Your task to perform on an android device: Is it going to rain tomorrow? Image 0: 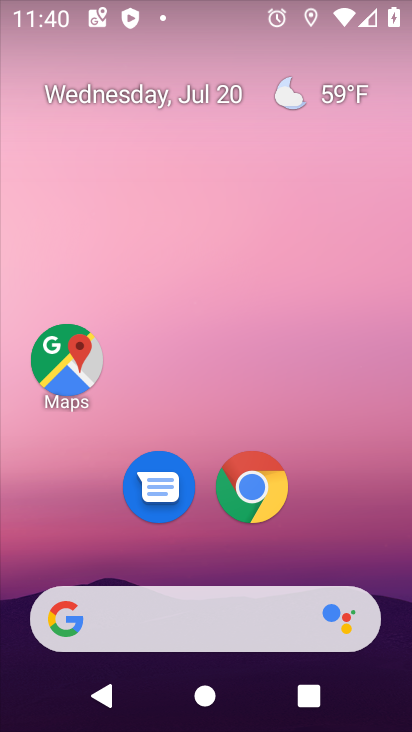
Step 0: click (221, 622)
Your task to perform on an android device: Is it going to rain tomorrow? Image 1: 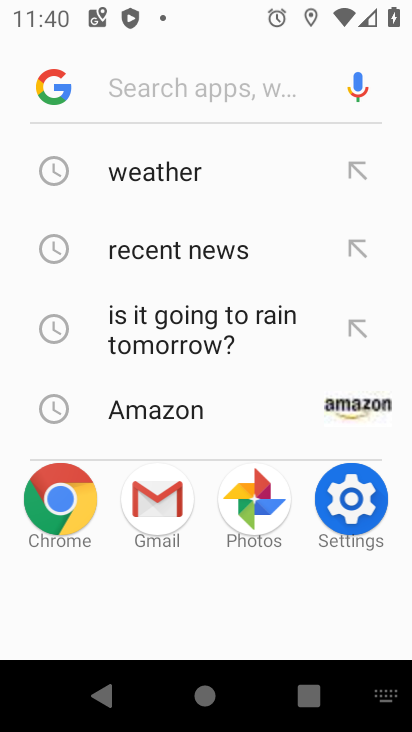
Step 1: click (169, 172)
Your task to perform on an android device: Is it going to rain tomorrow? Image 2: 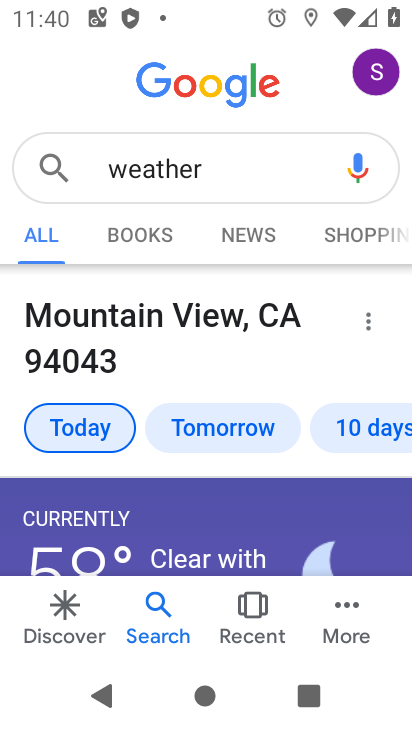
Step 2: click (189, 435)
Your task to perform on an android device: Is it going to rain tomorrow? Image 3: 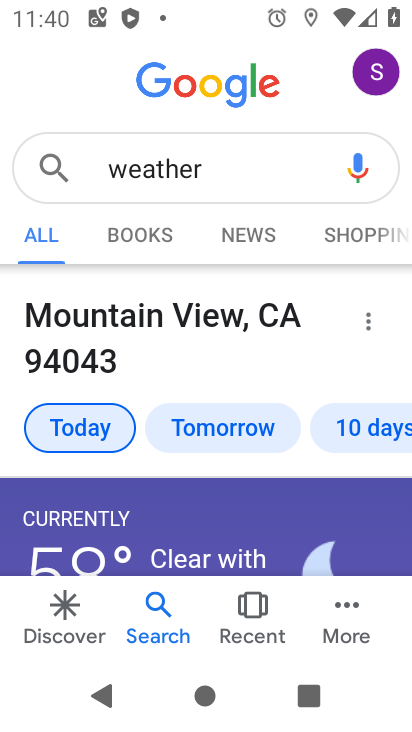
Step 3: click (216, 431)
Your task to perform on an android device: Is it going to rain tomorrow? Image 4: 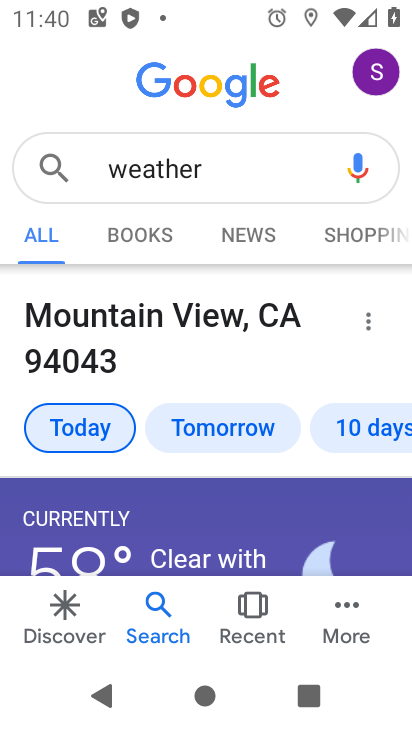
Step 4: click (216, 431)
Your task to perform on an android device: Is it going to rain tomorrow? Image 5: 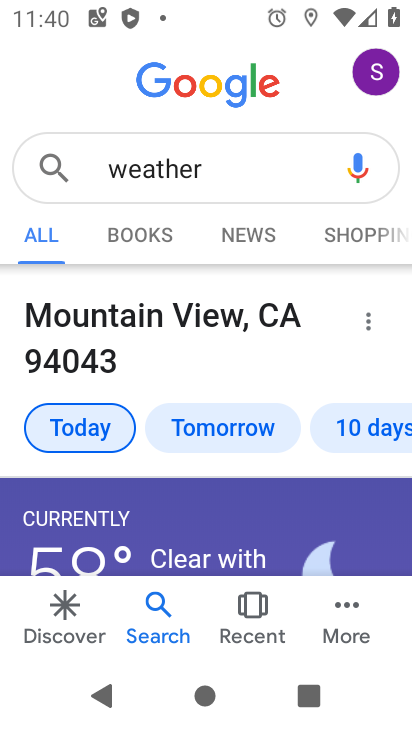
Step 5: click (216, 432)
Your task to perform on an android device: Is it going to rain tomorrow? Image 6: 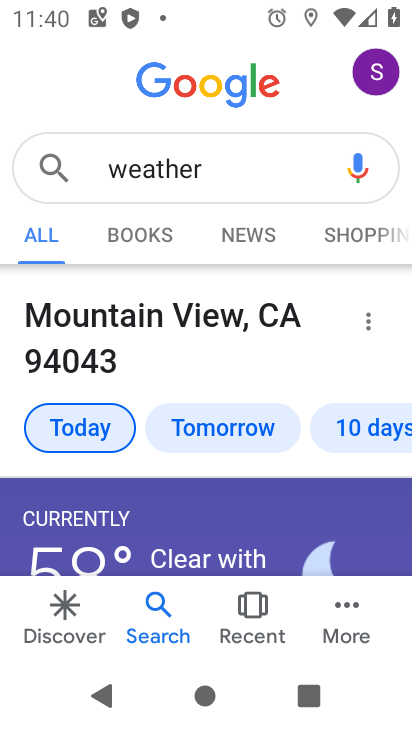
Step 6: click (216, 432)
Your task to perform on an android device: Is it going to rain tomorrow? Image 7: 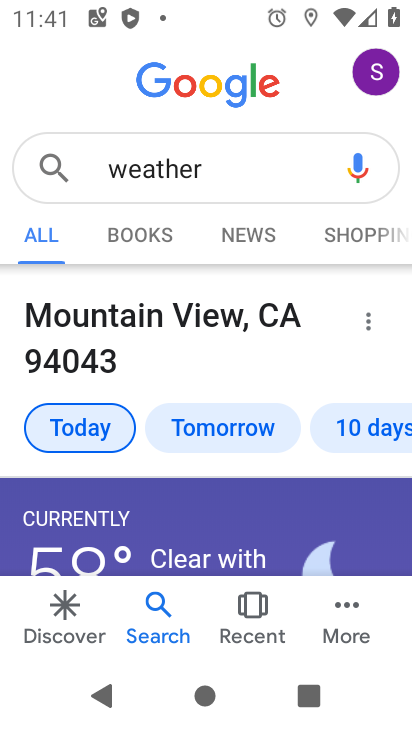
Step 7: task complete